Your task to perform on an android device: open chrome privacy settings Image 0: 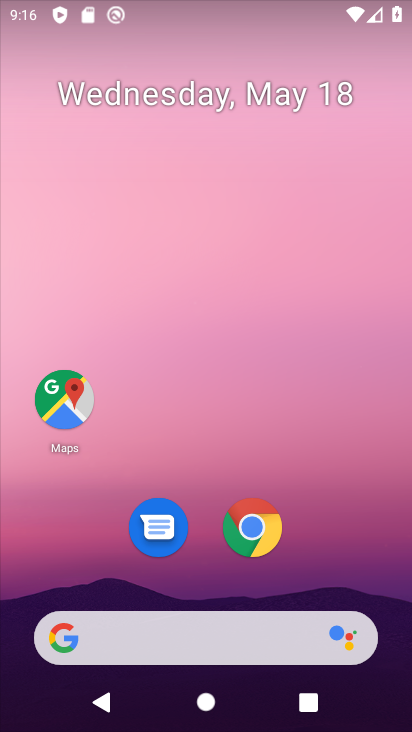
Step 0: click (251, 527)
Your task to perform on an android device: open chrome privacy settings Image 1: 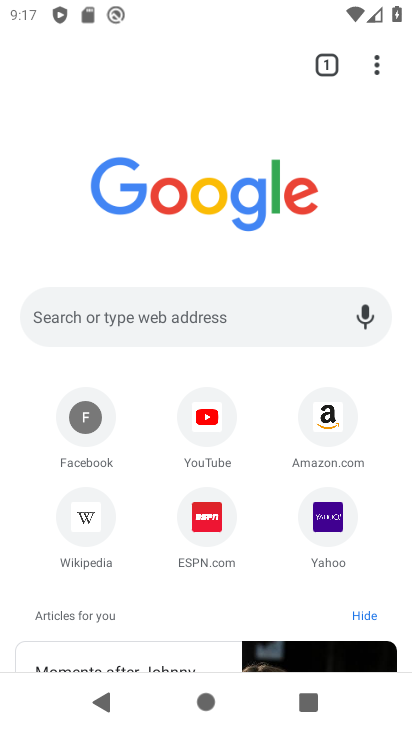
Step 1: click (389, 63)
Your task to perform on an android device: open chrome privacy settings Image 2: 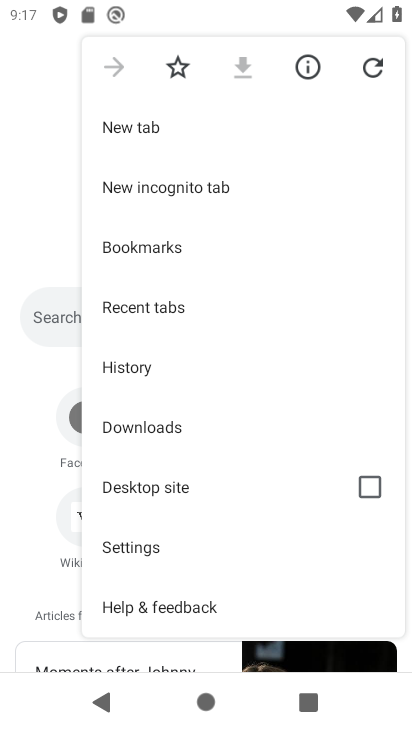
Step 2: click (147, 551)
Your task to perform on an android device: open chrome privacy settings Image 3: 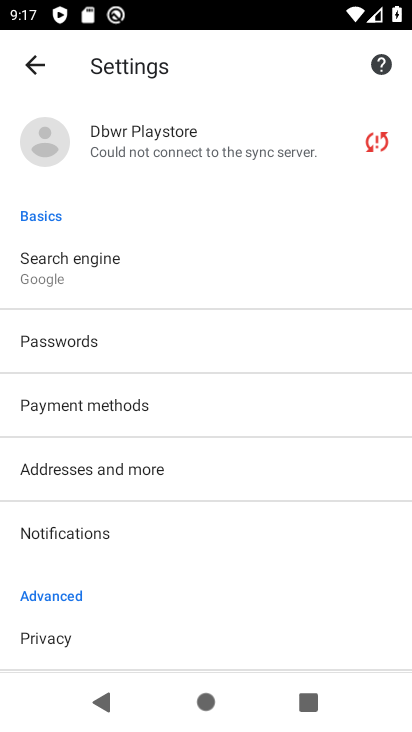
Step 3: click (50, 638)
Your task to perform on an android device: open chrome privacy settings Image 4: 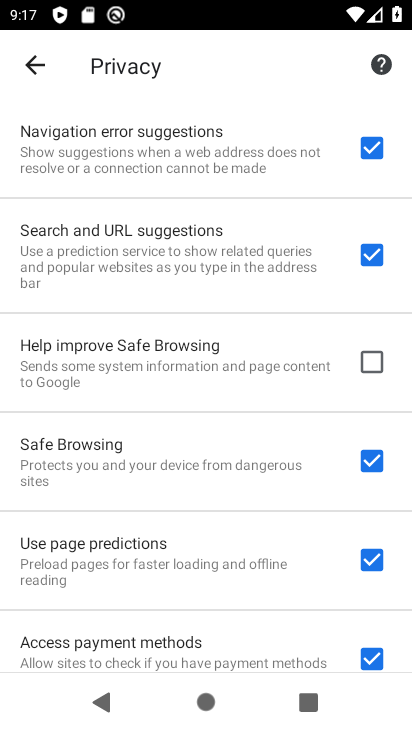
Step 4: task complete